Your task to perform on an android device: change notifications settings Image 0: 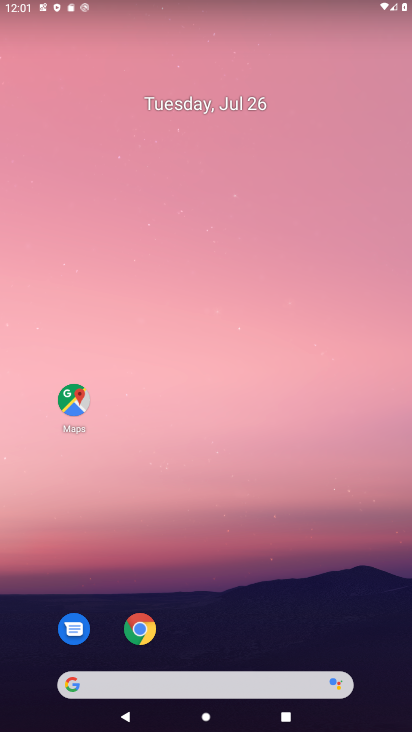
Step 0: drag from (333, 609) to (264, 5)
Your task to perform on an android device: change notifications settings Image 1: 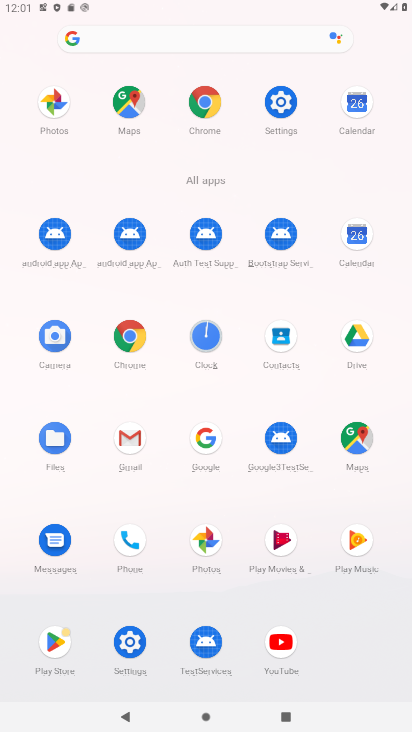
Step 1: click (133, 644)
Your task to perform on an android device: change notifications settings Image 2: 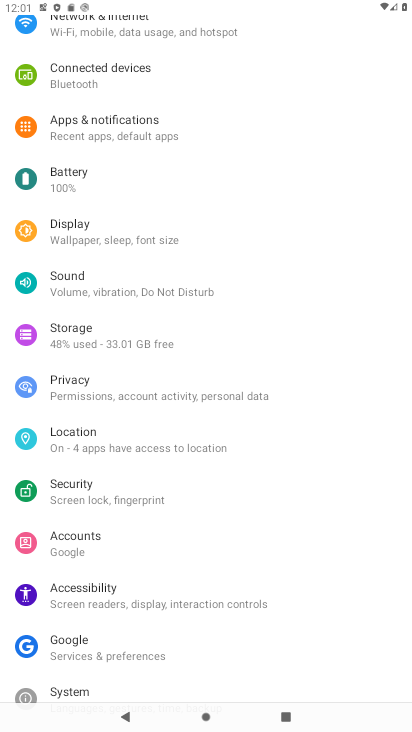
Step 2: click (179, 120)
Your task to perform on an android device: change notifications settings Image 3: 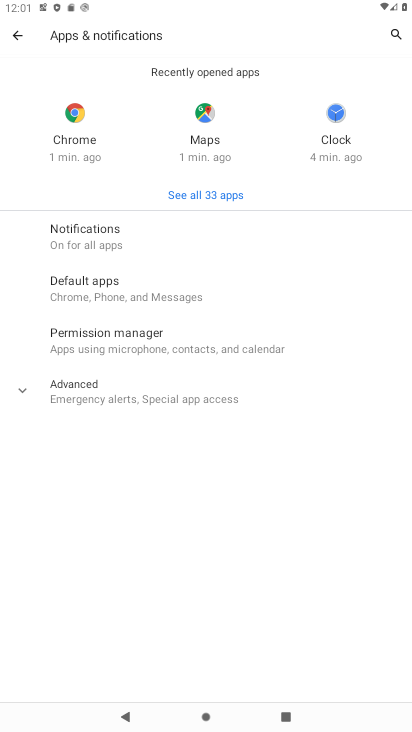
Step 3: click (191, 226)
Your task to perform on an android device: change notifications settings Image 4: 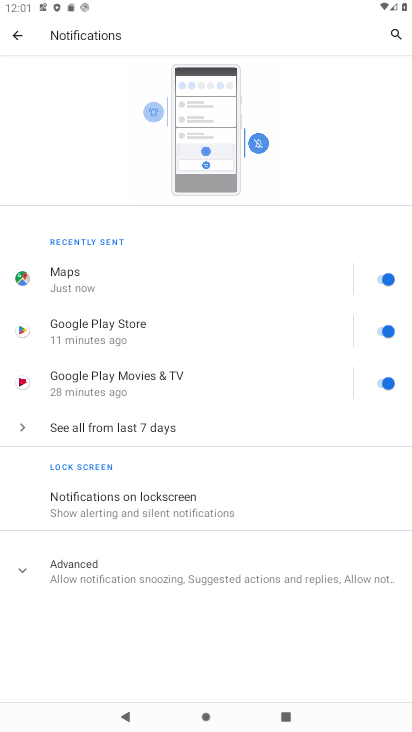
Step 4: click (214, 573)
Your task to perform on an android device: change notifications settings Image 5: 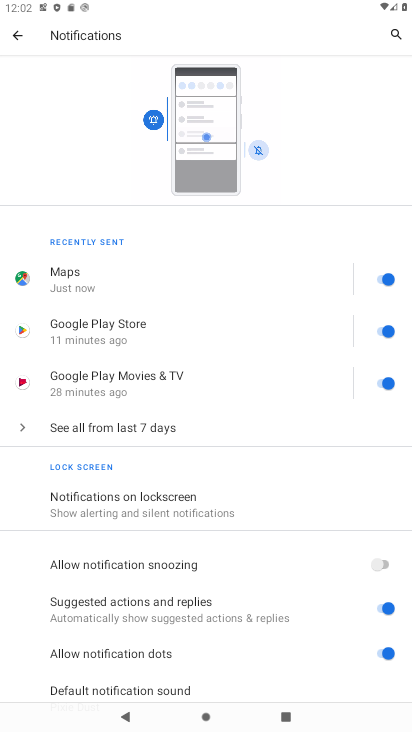
Step 5: click (390, 618)
Your task to perform on an android device: change notifications settings Image 6: 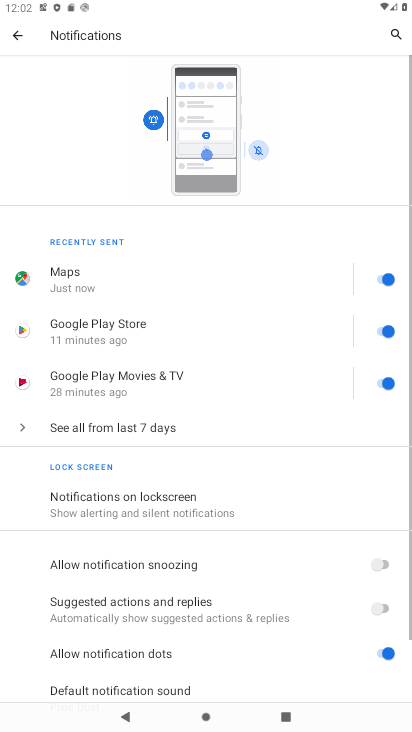
Step 6: click (381, 569)
Your task to perform on an android device: change notifications settings Image 7: 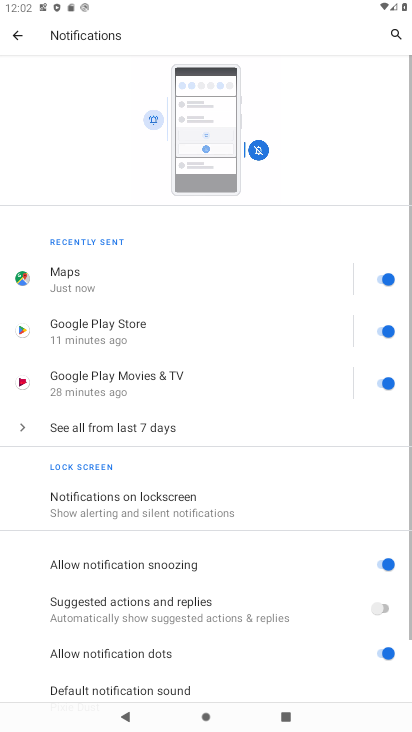
Step 7: click (392, 655)
Your task to perform on an android device: change notifications settings Image 8: 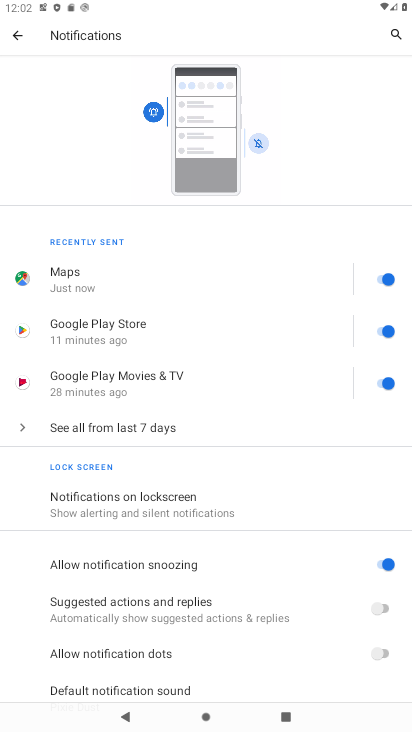
Step 8: task complete